Your task to perform on an android device: What's on the menu at Starbucks? Image 0: 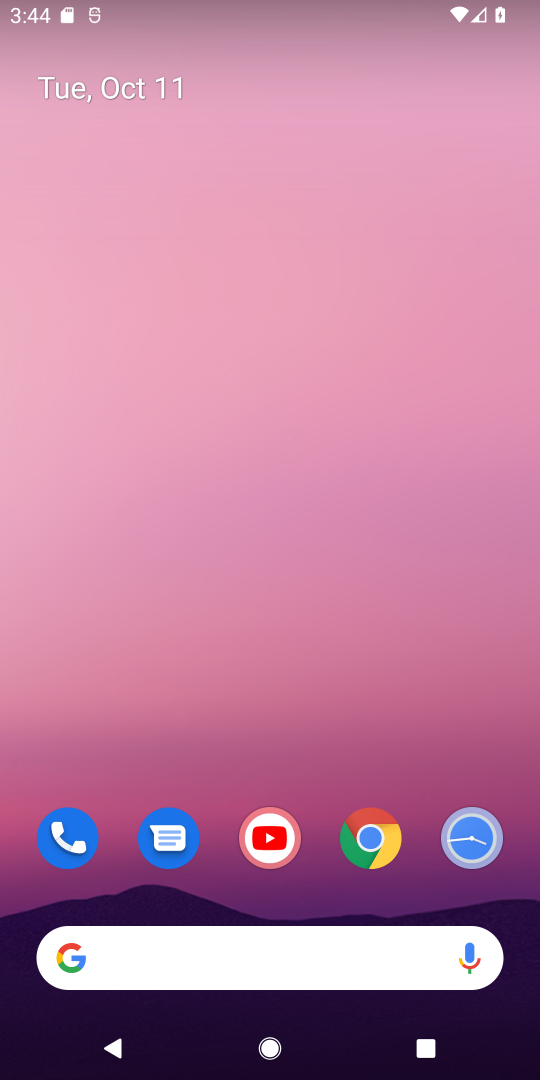
Step 0: click (299, 956)
Your task to perform on an android device: What's on the menu at Starbucks? Image 1: 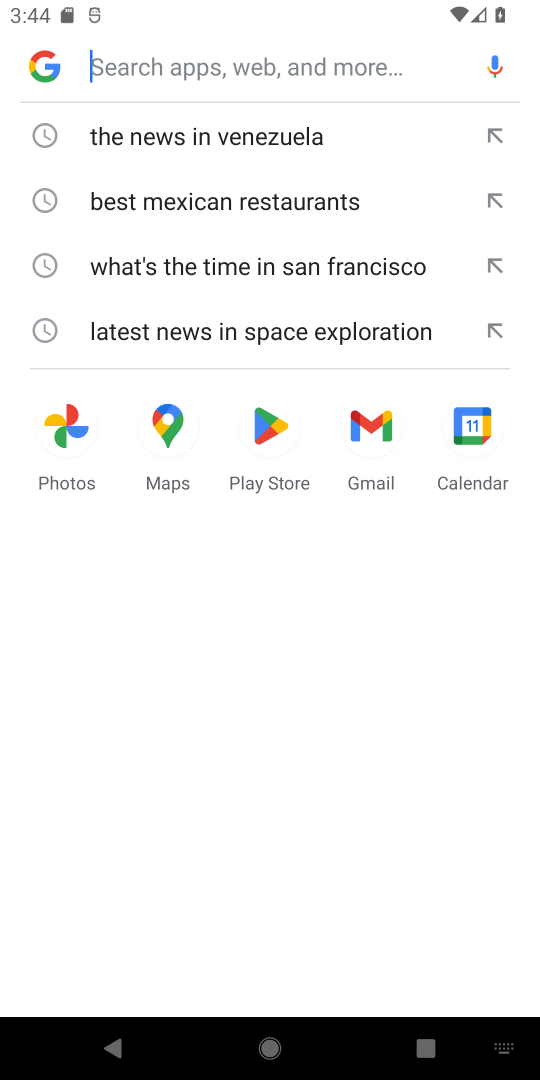
Step 1: type "menu at Starbucks"
Your task to perform on an android device: What's on the menu at Starbucks? Image 2: 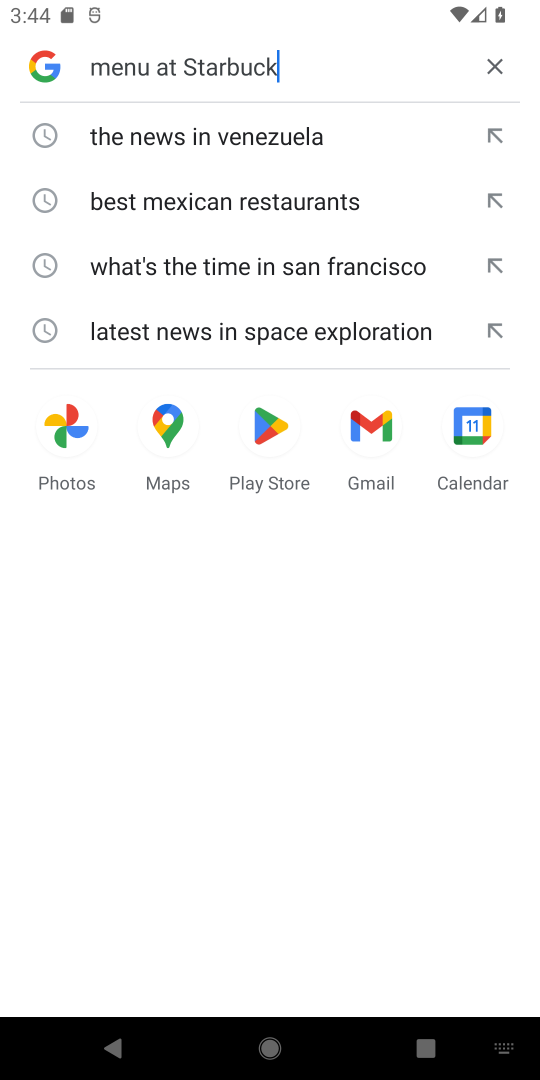
Step 2: type ""
Your task to perform on an android device: What's on the menu at Starbucks? Image 3: 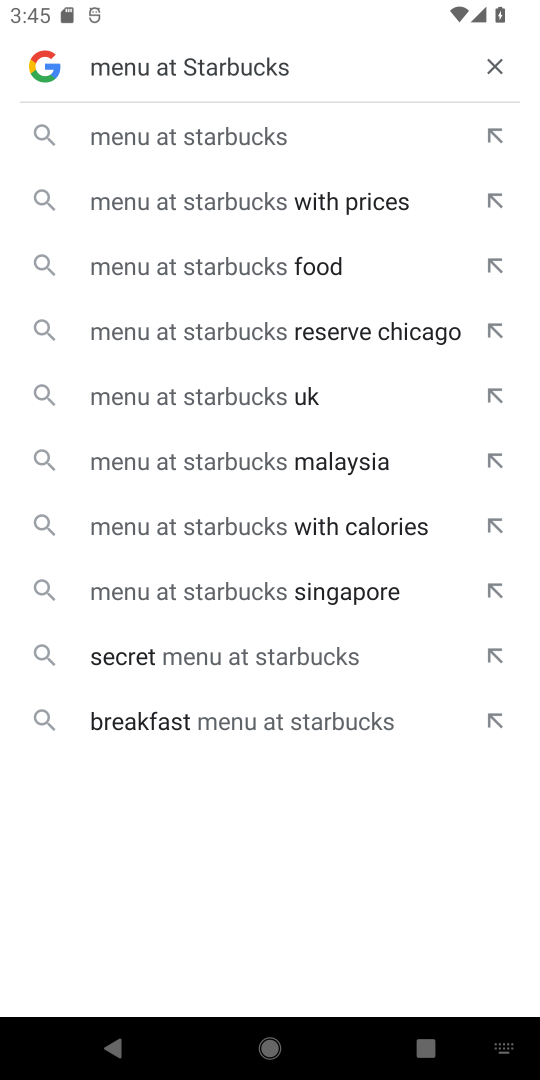
Step 3: click (250, 148)
Your task to perform on an android device: What's on the menu at Starbucks? Image 4: 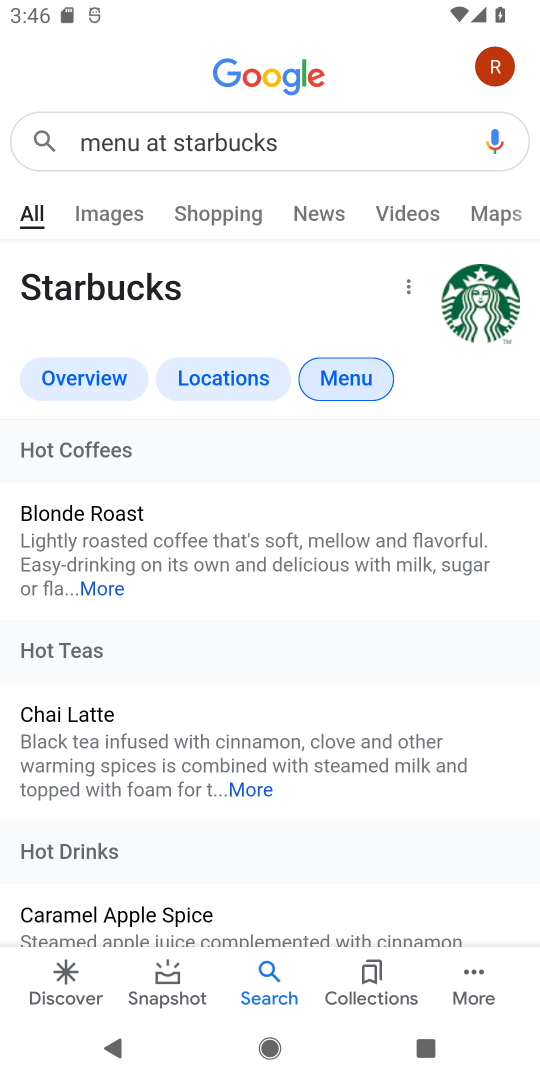
Step 4: task complete